Your task to perform on an android device: What's the weather going to be this weekend? Image 0: 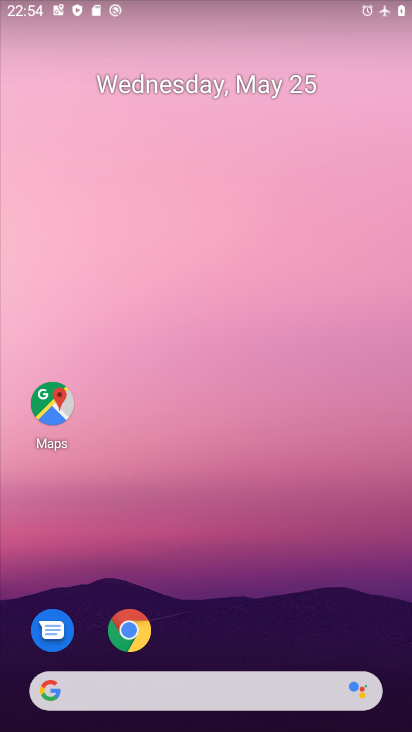
Step 0: drag from (237, 643) to (204, 147)
Your task to perform on an android device: What's the weather going to be this weekend? Image 1: 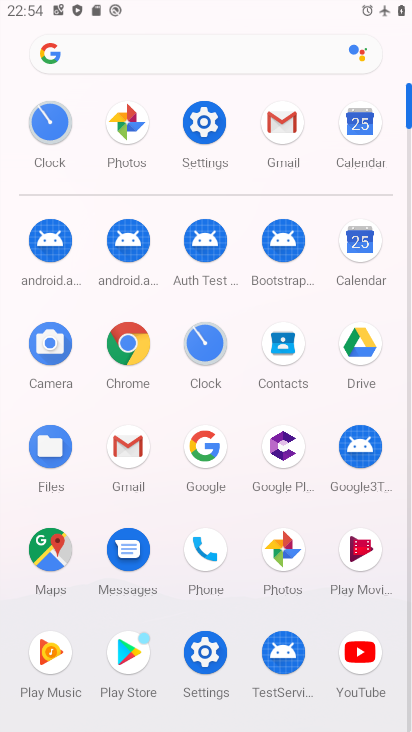
Step 1: click (194, 433)
Your task to perform on an android device: What's the weather going to be this weekend? Image 2: 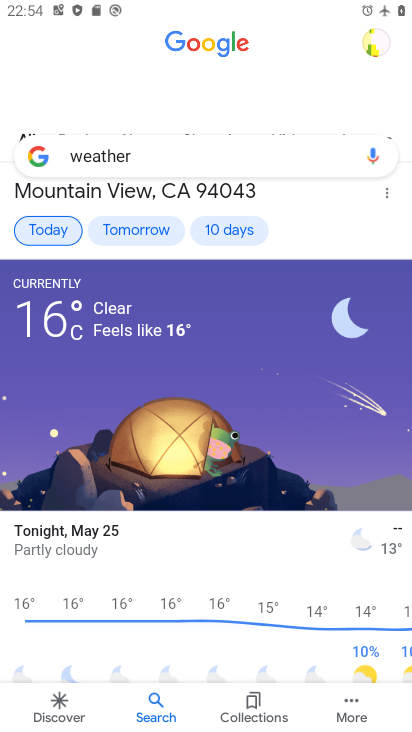
Step 2: click (230, 234)
Your task to perform on an android device: What's the weather going to be this weekend? Image 3: 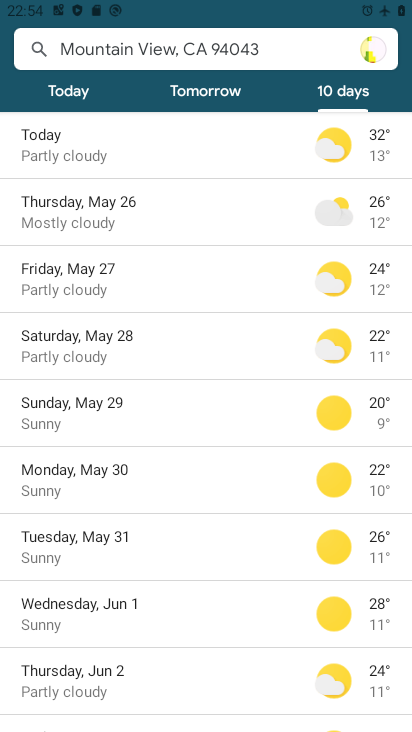
Step 3: task complete